Your task to perform on an android device: Show me productivity apps on the Play Store Image 0: 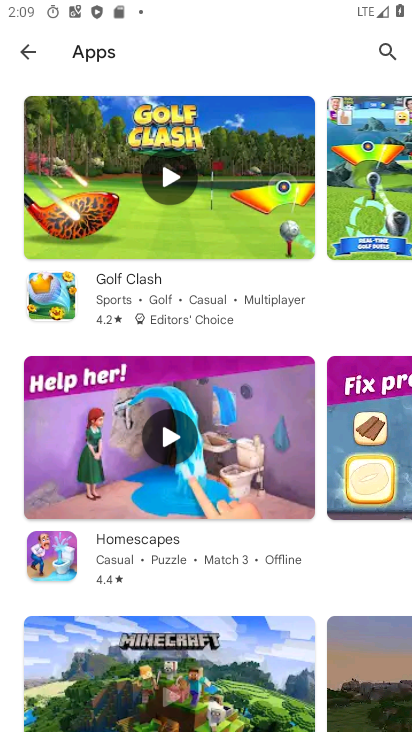
Step 0: drag from (252, 569) to (252, 299)
Your task to perform on an android device: Show me productivity apps on the Play Store Image 1: 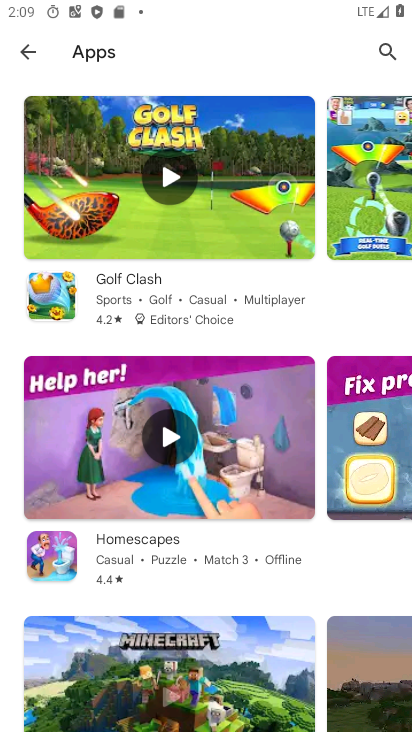
Step 1: drag from (232, 575) to (254, 269)
Your task to perform on an android device: Show me productivity apps on the Play Store Image 2: 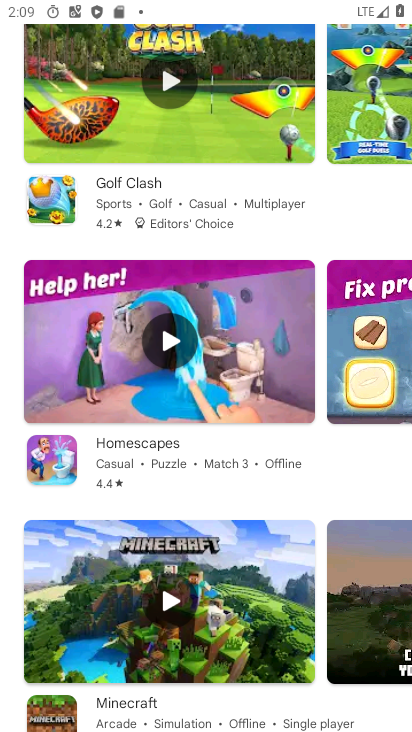
Step 2: click (267, 726)
Your task to perform on an android device: Show me productivity apps on the Play Store Image 3: 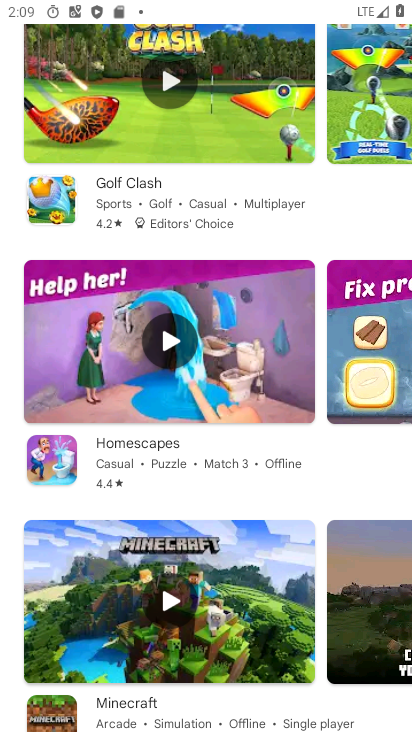
Step 3: drag from (224, 248) to (264, 701)
Your task to perform on an android device: Show me productivity apps on the Play Store Image 4: 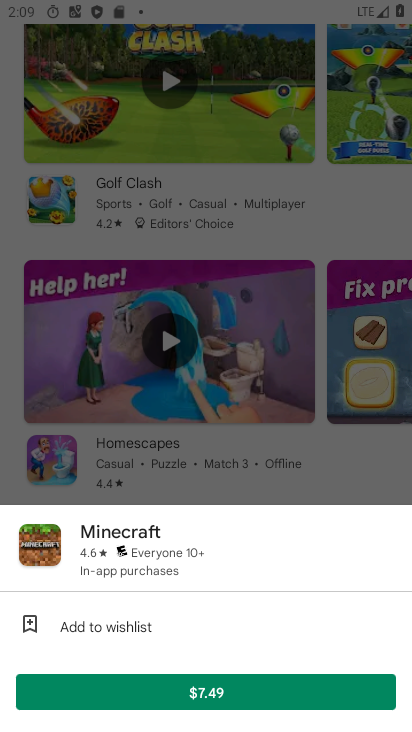
Step 4: press back button
Your task to perform on an android device: Show me productivity apps on the Play Store Image 5: 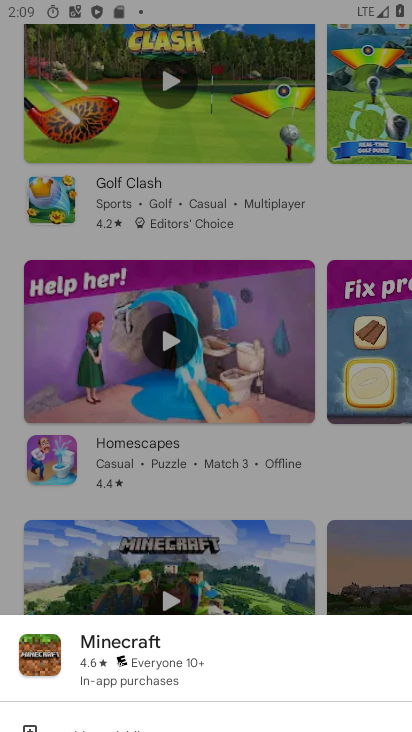
Step 5: click (264, 701)
Your task to perform on an android device: Show me productivity apps on the Play Store Image 6: 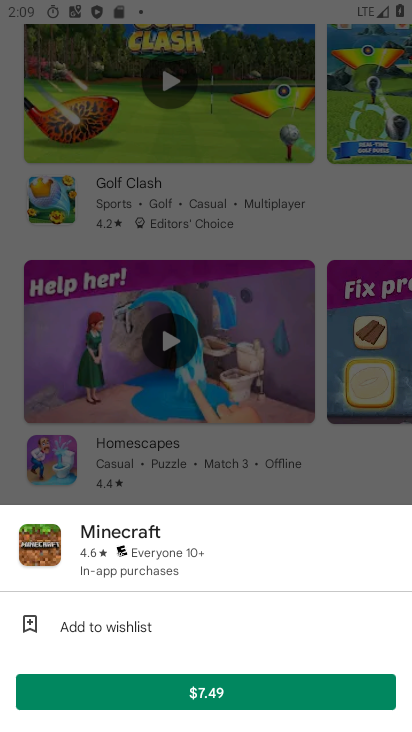
Step 6: press back button
Your task to perform on an android device: Show me productivity apps on the Play Store Image 7: 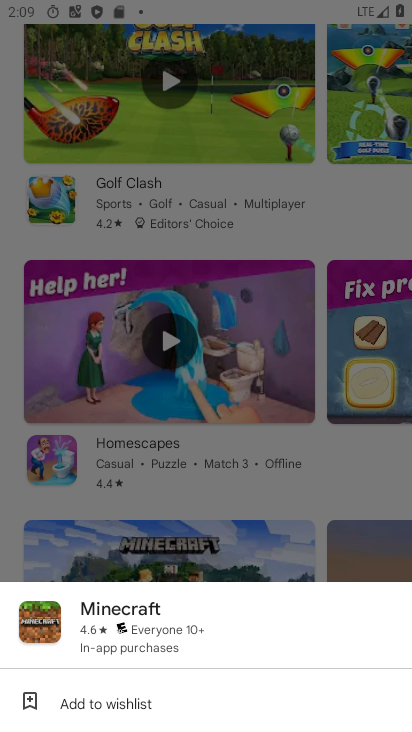
Step 7: click (264, 701)
Your task to perform on an android device: Show me productivity apps on the Play Store Image 8: 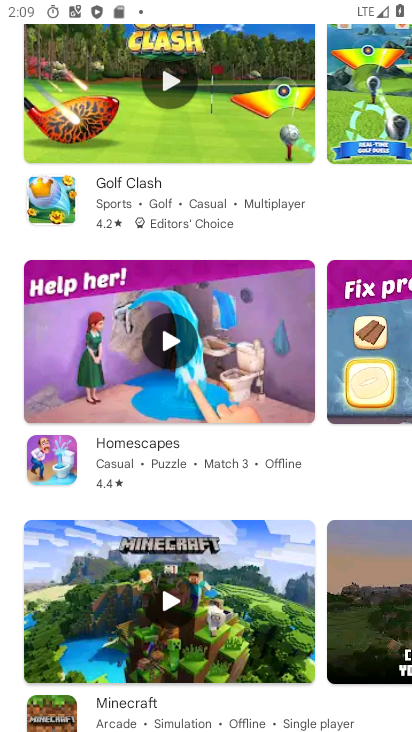
Step 8: press back button
Your task to perform on an android device: Show me productivity apps on the Play Store Image 9: 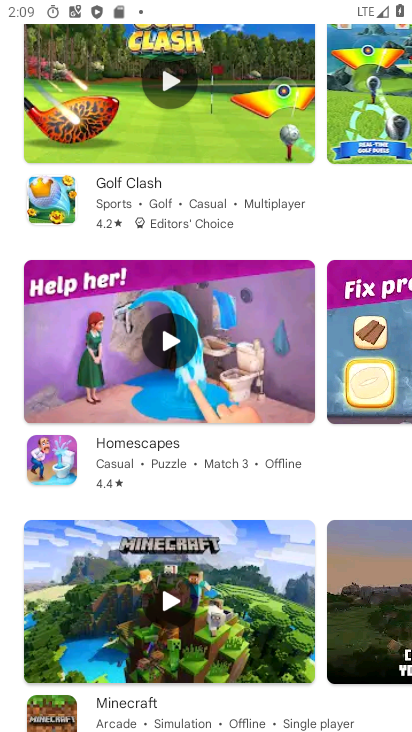
Step 9: click (394, 429)
Your task to perform on an android device: Show me productivity apps on the Play Store Image 10: 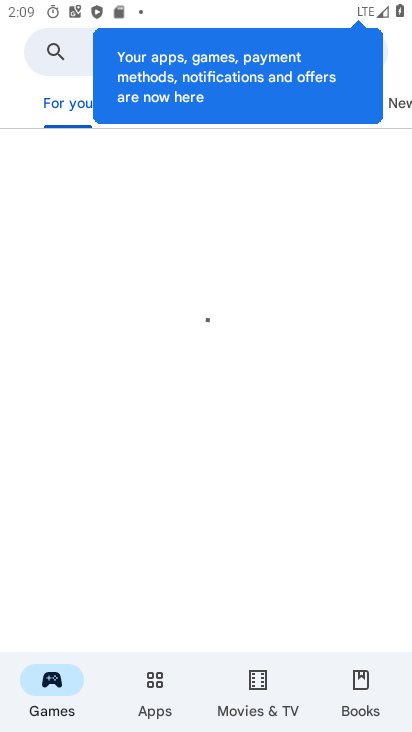
Step 10: task complete